Your task to perform on an android device: turn off picture-in-picture Image 0: 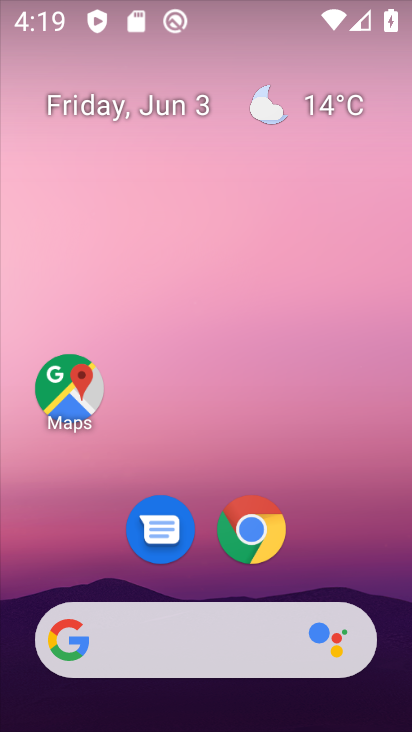
Step 0: click (261, 532)
Your task to perform on an android device: turn off picture-in-picture Image 1: 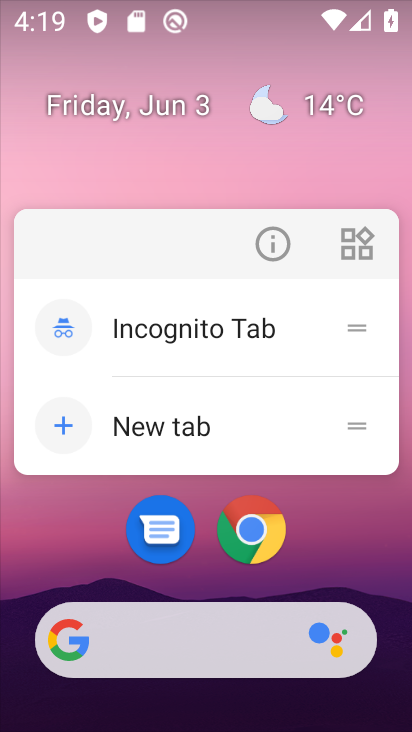
Step 1: click (279, 262)
Your task to perform on an android device: turn off picture-in-picture Image 2: 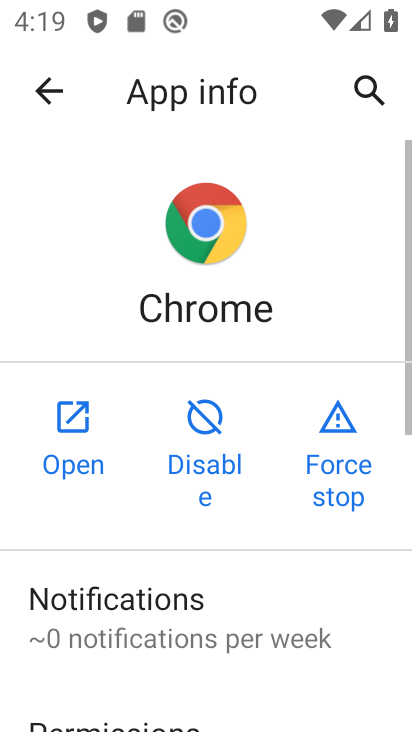
Step 2: drag from (183, 585) to (229, 103)
Your task to perform on an android device: turn off picture-in-picture Image 3: 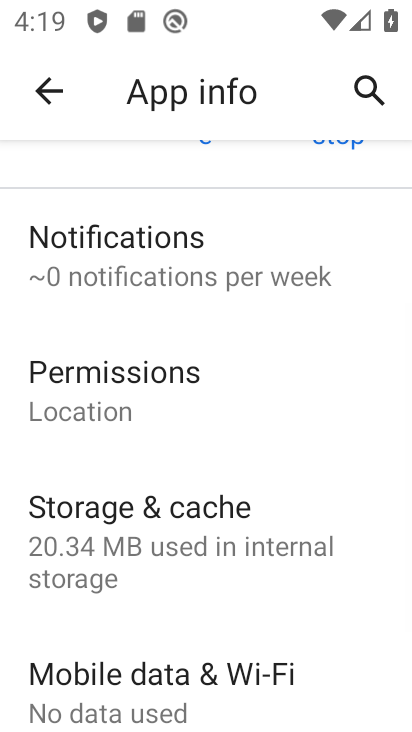
Step 3: drag from (179, 521) to (187, 98)
Your task to perform on an android device: turn off picture-in-picture Image 4: 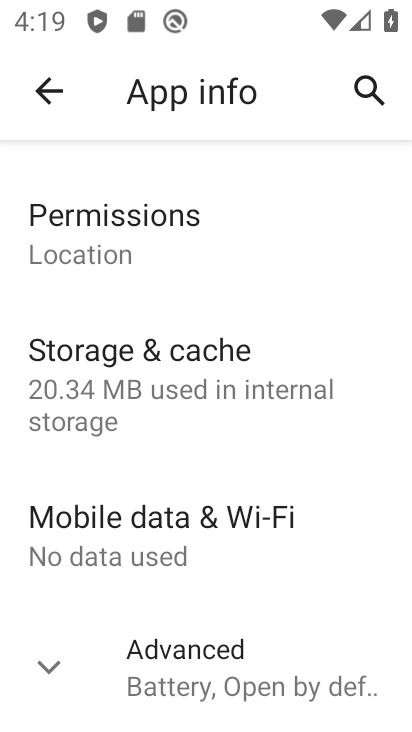
Step 4: click (235, 655)
Your task to perform on an android device: turn off picture-in-picture Image 5: 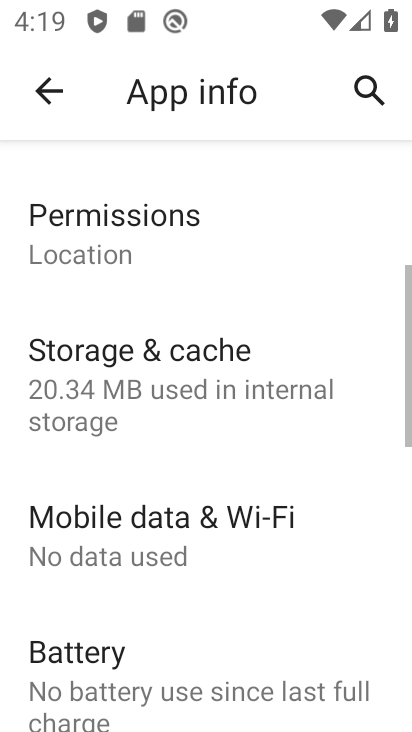
Step 5: drag from (248, 544) to (283, 174)
Your task to perform on an android device: turn off picture-in-picture Image 6: 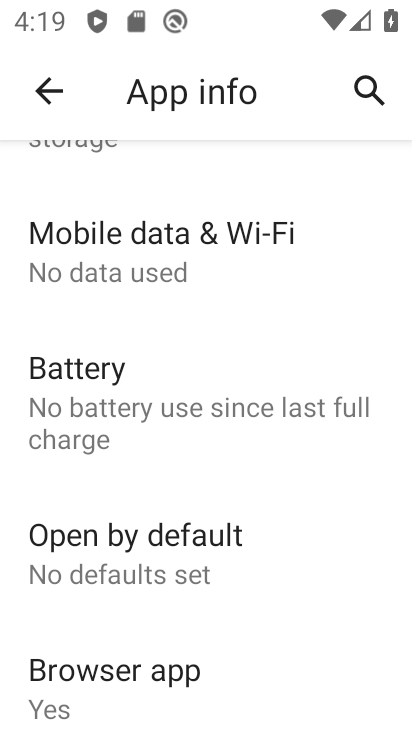
Step 6: drag from (213, 607) to (232, 190)
Your task to perform on an android device: turn off picture-in-picture Image 7: 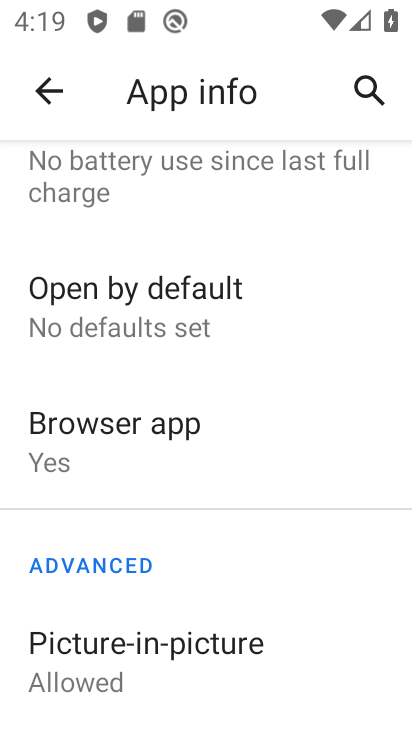
Step 7: click (156, 633)
Your task to perform on an android device: turn off picture-in-picture Image 8: 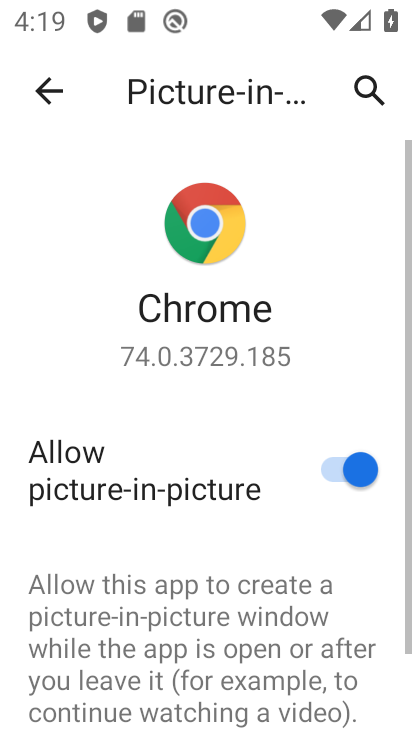
Step 8: click (335, 468)
Your task to perform on an android device: turn off picture-in-picture Image 9: 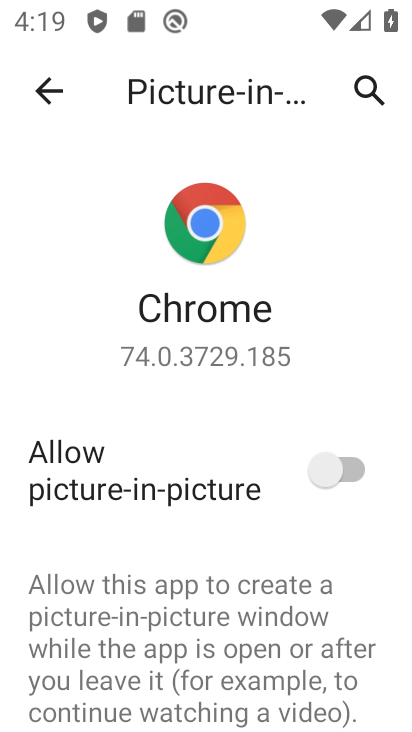
Step 9: task complete